Your task to perform on an android device: see tabs open on other devices in the chrome app Image 0: 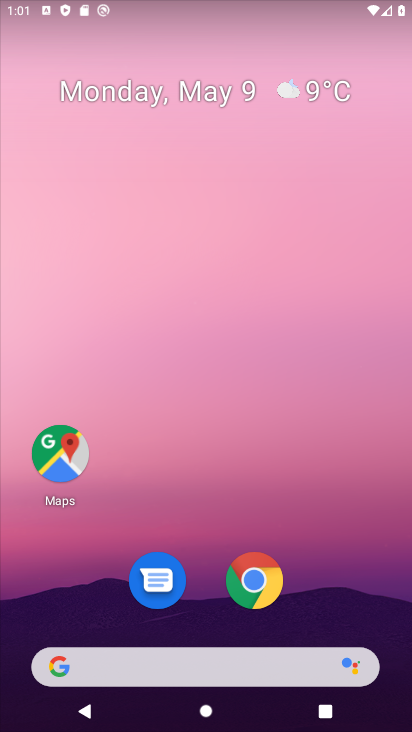
Step 0: click (274, 586)
Your task to perform on an android device: see tabs open on other devices in the chrome app Image 1: 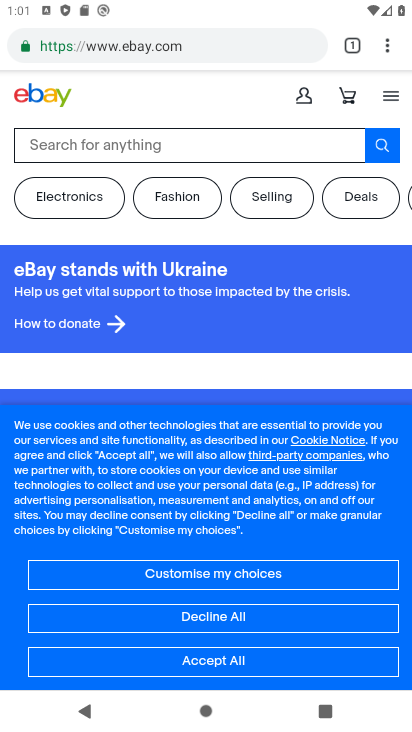
Step 1: click (383, 48)
Your task to perform on an android device: see tabs open on other devices in the chrome app Image 2: 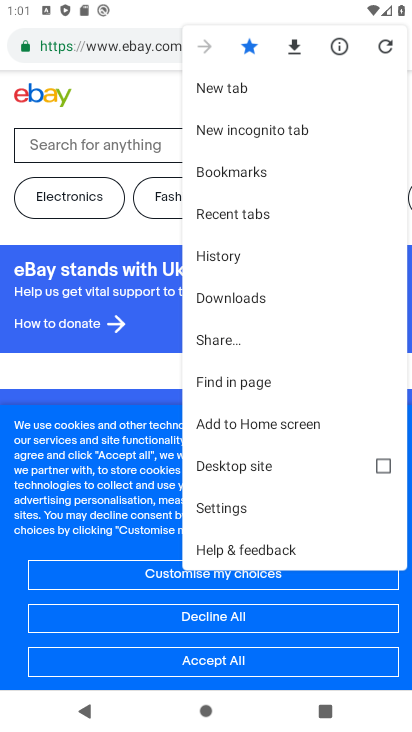
Step 2: click (244, 218)
Your task to perform on an android device: see tabs open on other devices in the chrome app Image 3: 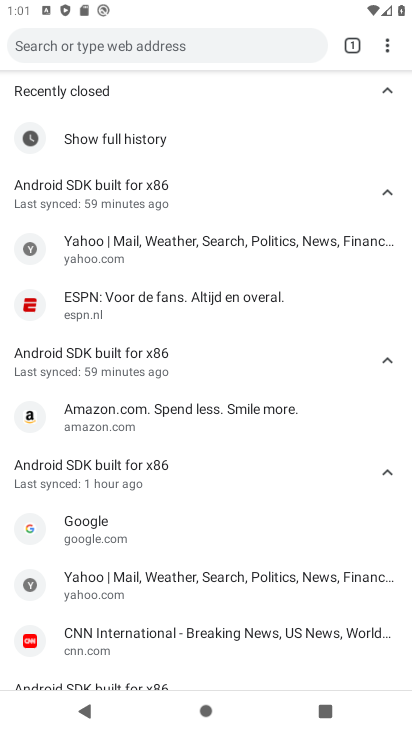
Step 3: task complete